Your task to perform on an android device: read, delete, or share a saved page in the chrome app Image 0: 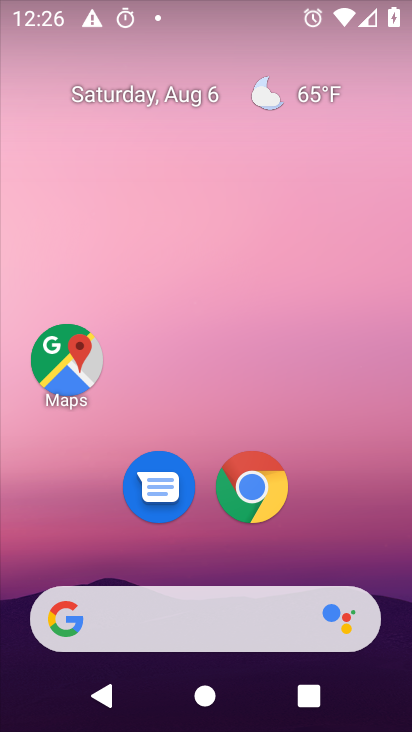
Step 0: click (255, 472)
Your task to perform on an android device: read, delete, or share a saved page in the chrome app Image 1: 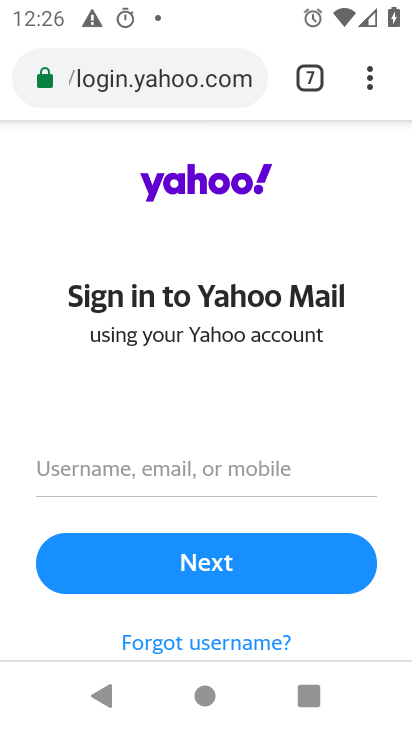
Step 1: task complete